Your task to perform on an android device: View the shopping cart on walmart. Search for "logitech g933" on walmart, select the first entry, and add it to the cart. Image 0: 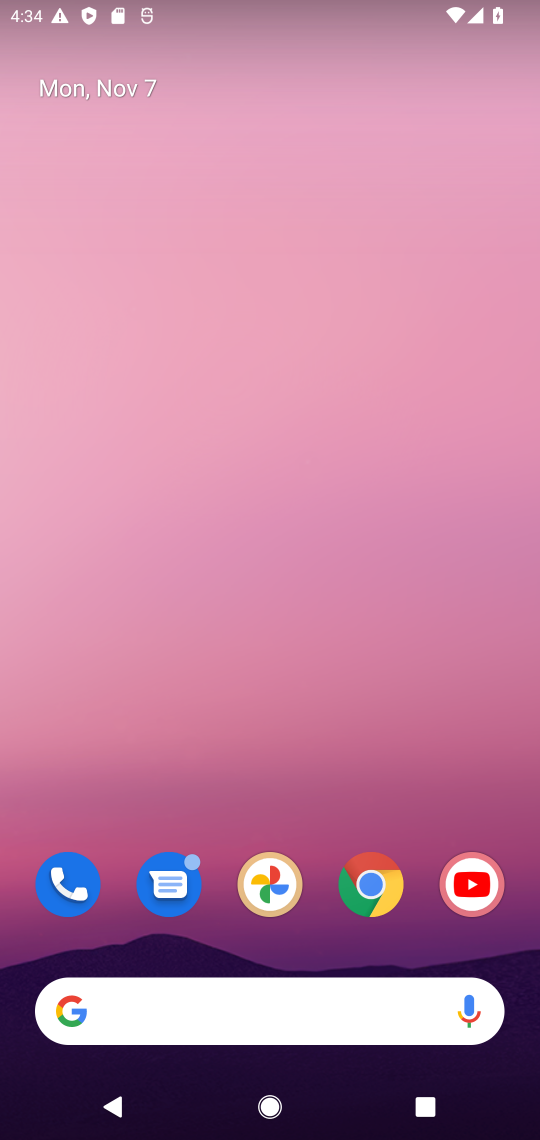
Step 0: drag from (317, 864) to (277, 0)
Your task to perform on an android device: View the shopping cart on walmart. Search for "logitech g933" on walmart, select the first entry, and add it to the cart. Image 1: 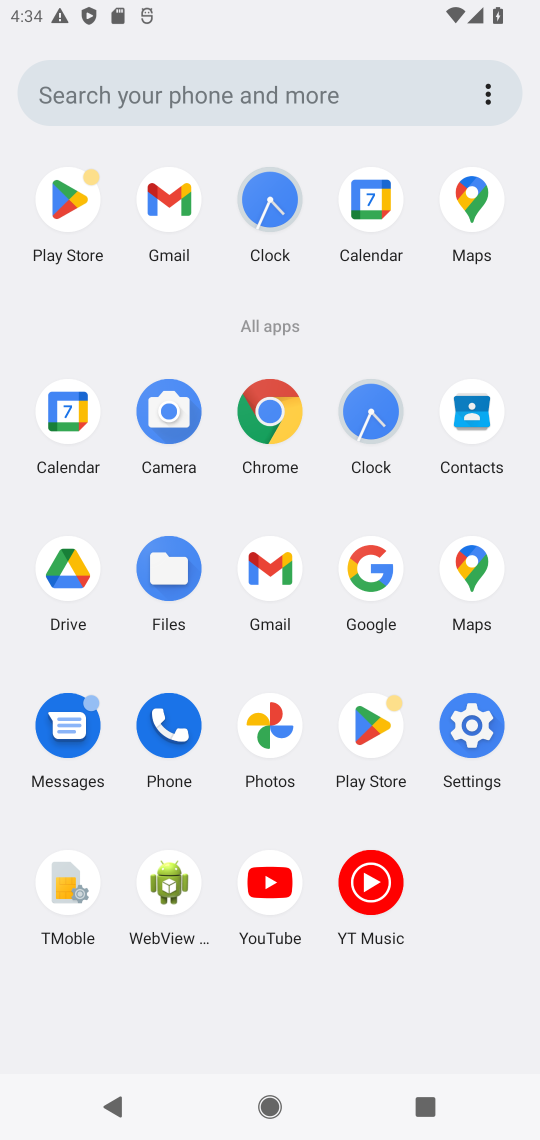
Step 1: click (269, 419)
Your task to perform on an android device: View the shopping cart on walmart. Search for "logitech g933" on walmart, select the first entry, and add it to the cart. Image 2: 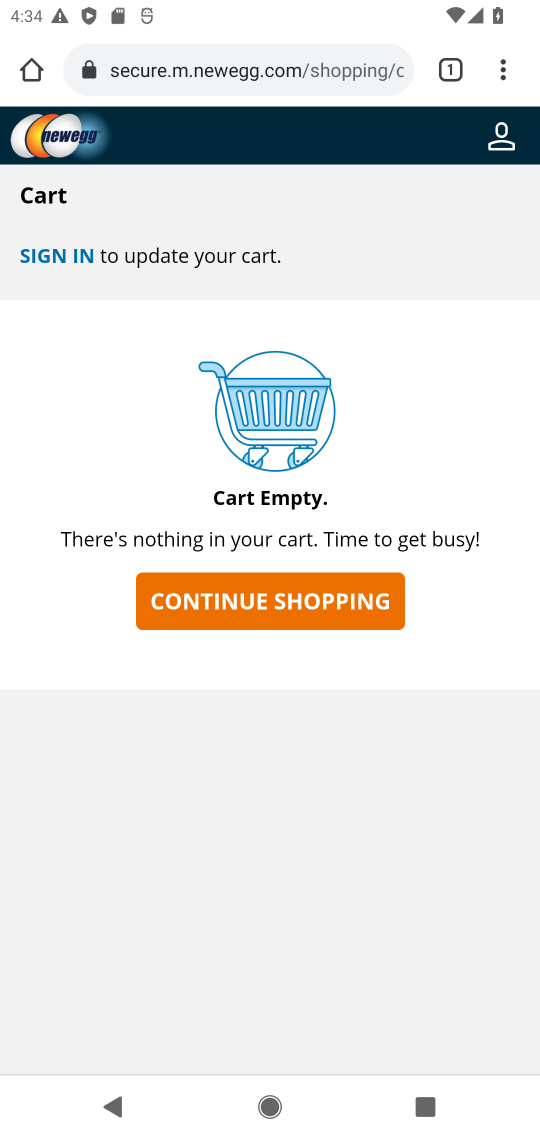
Step 2: click (312, 81)
Your task to perform on an android device: View the shopping cart on walmart. Search for "logitech g933" on walmart, select the first entry, and add it to the cart. Image 3: 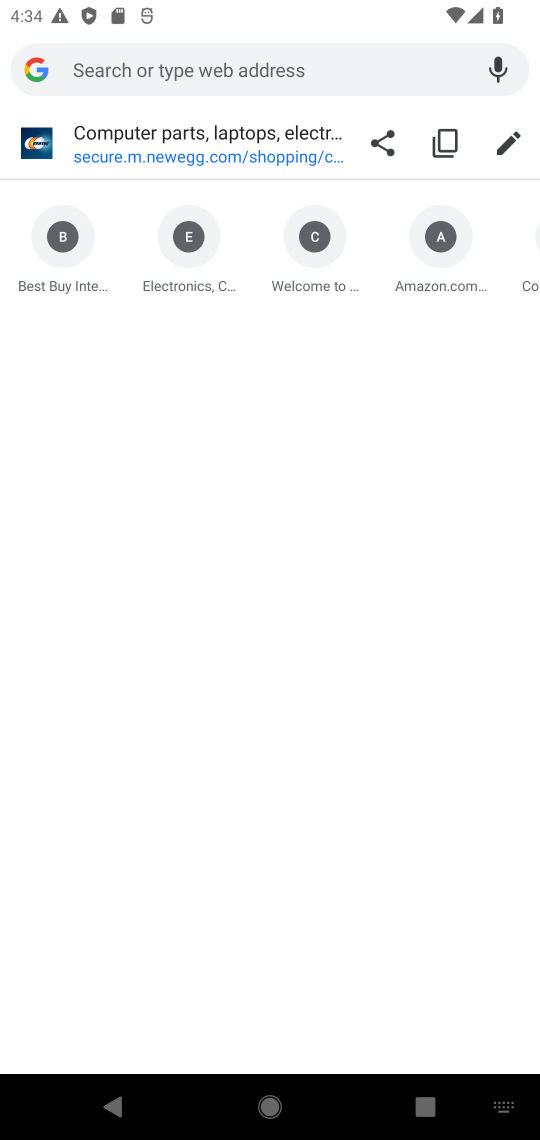
Step 3: type "walmart.com"
Your task to perform on an android device: View the shopping cart on walmart. Search for "logitech g933" on walmart, select the first entry, and add it to the cart. Image 4: 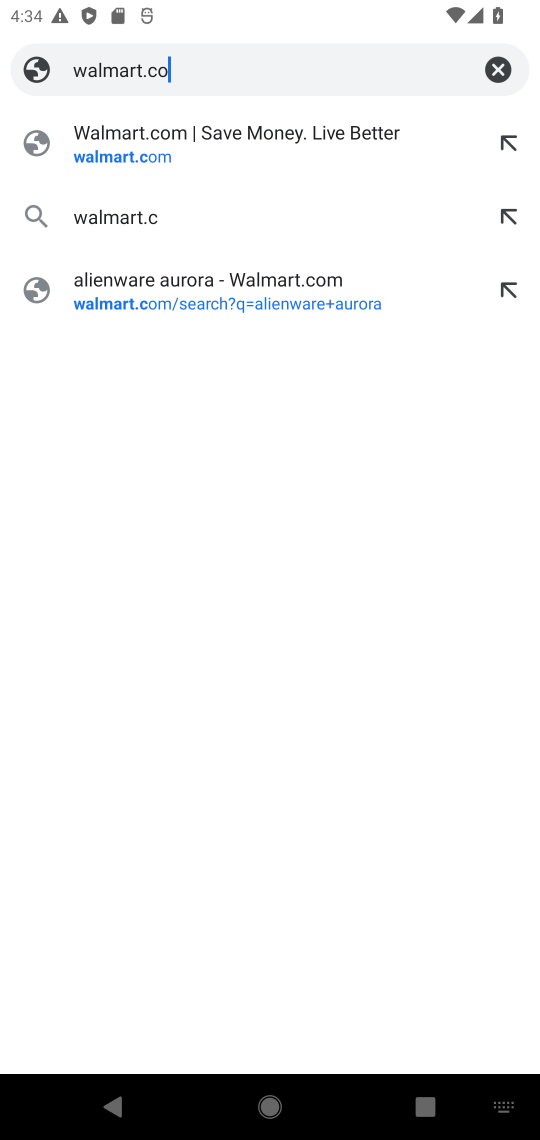
Step 4: press enter
Your task to perform on an android device: View the shopping cart on walmart. Search for "logitech g933" on walmart, select the first entry, and add it to the cart. Image 5: 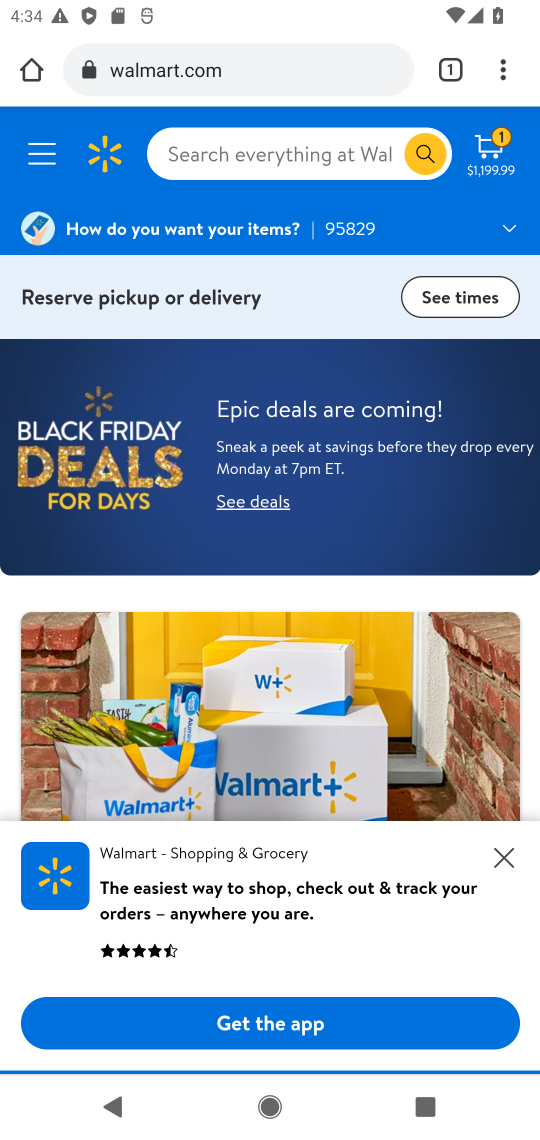
Step 5: click (500, 141)
Your task to perform on an android device: View the shopping cart on walmart. Search for "logitech g933" on walmart, select the first entry, and add it to the cart. Image 6: 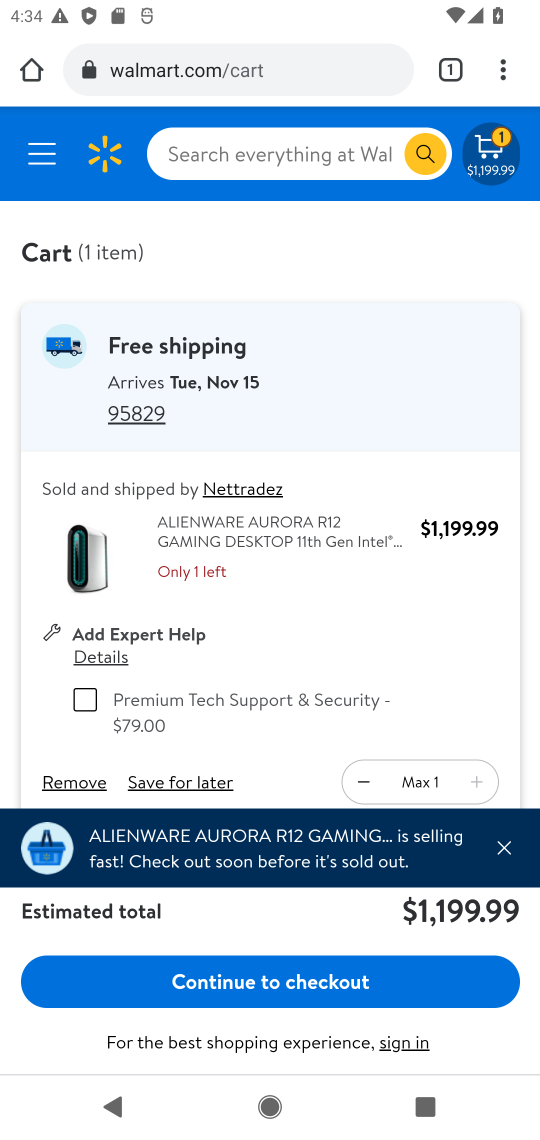
Step 6: click (261, 168)
Your task to perform on an android device: View the shopping cart on walmart. Search for "logitech g933" on walmart, select the first entry, and add it to the cart. Image 7: 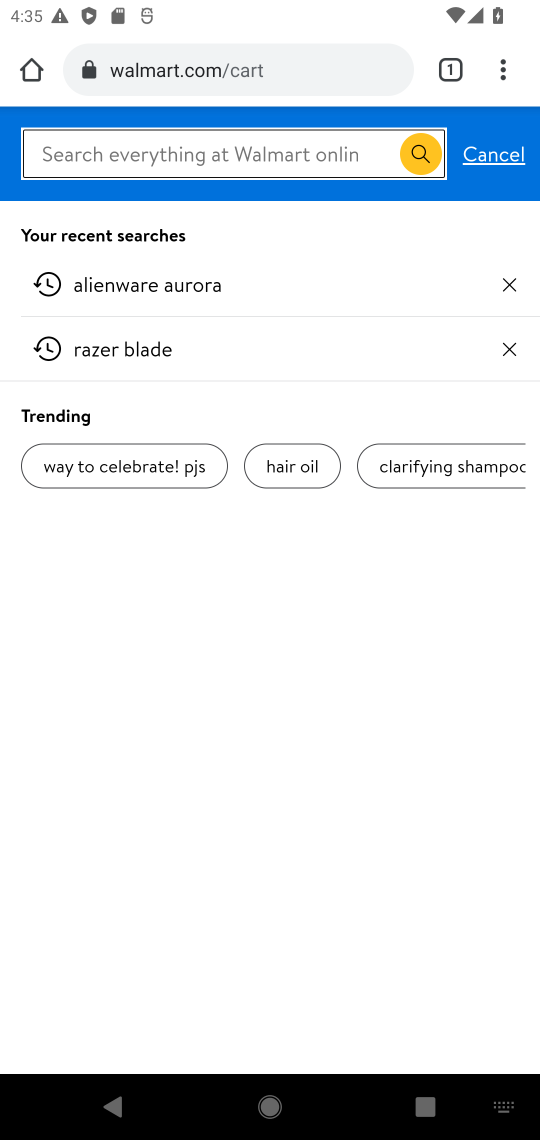
Step 7: type "logitech g933"
Your task to perform on an android device: View the shopping cart on walmart. Search for "logitech g933" on walmart, select the first entry, and add it to the cart. Image 8: 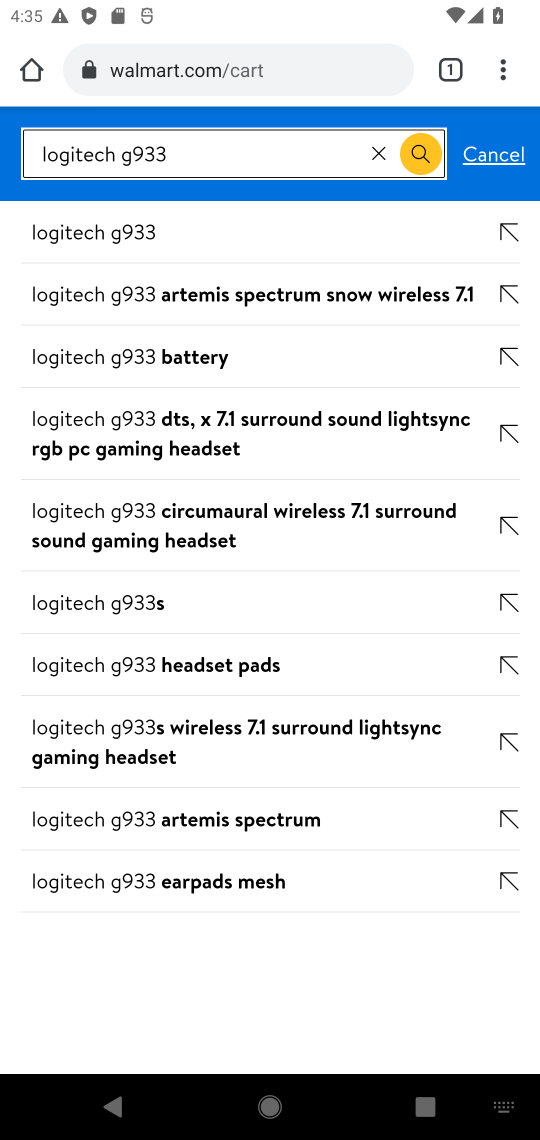
Step 8: press enter
Your task to perform on an android device: View the shopping cart on walmart. Search for "logitech g933" on walmart, select the first entry, and add it to the cart. Image 9: 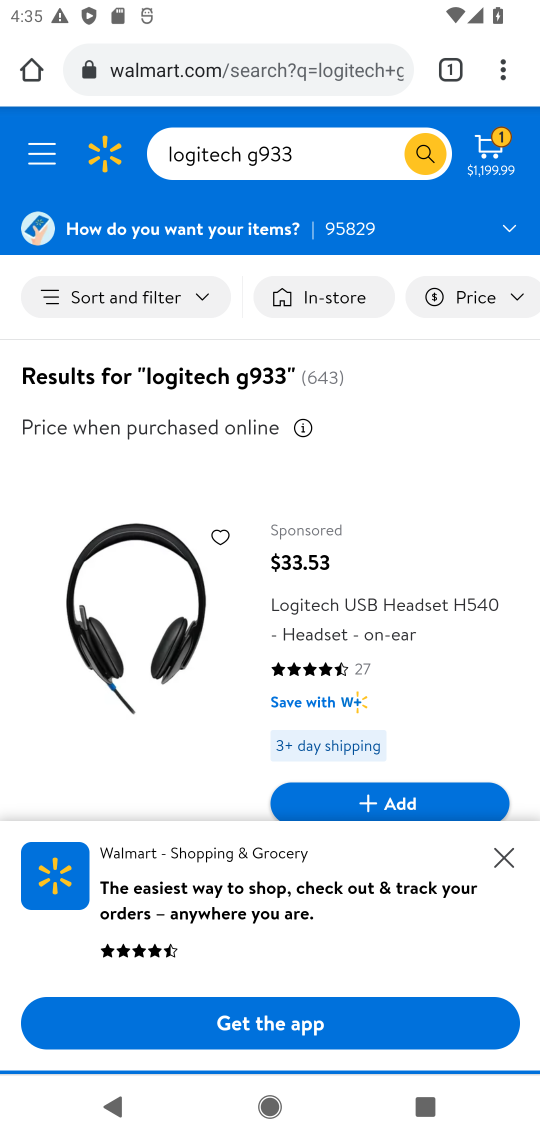
Step 9: drag from (318, 618) to (322, 253)
Your task to perform on an android device: View the shopping cart on walmart. Search for "logitech g933" on walmart, select the first entry, and add it to the cart. Image 10: 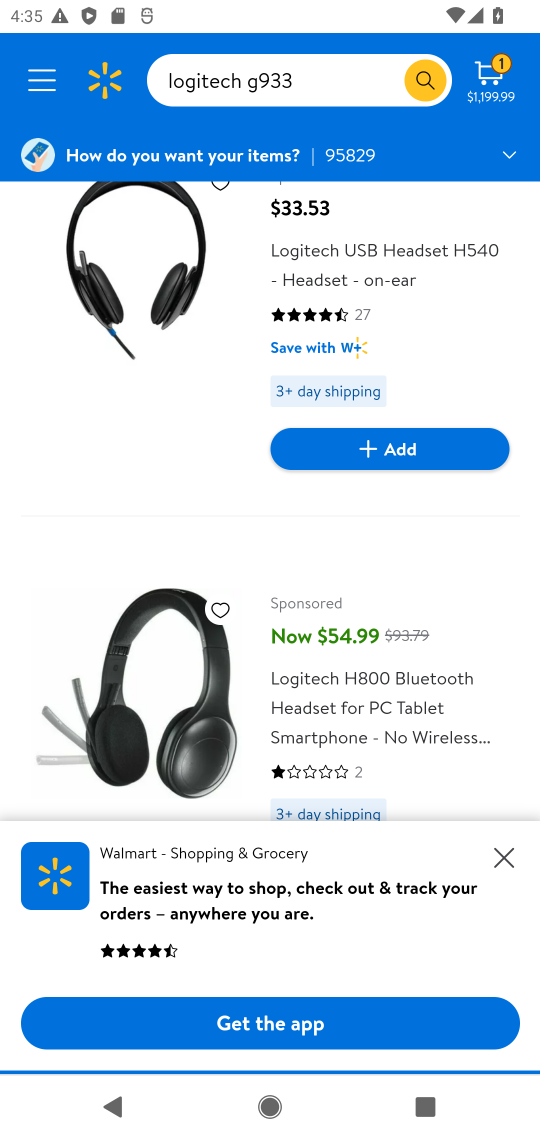
Step 10: drag from (370, 535) to (397, 751)
Your task to perform on an android device: View the shopping cart on walmart. Search for "logitech g933" on walmart, select the first entry, and add it to the cart. Image 11: 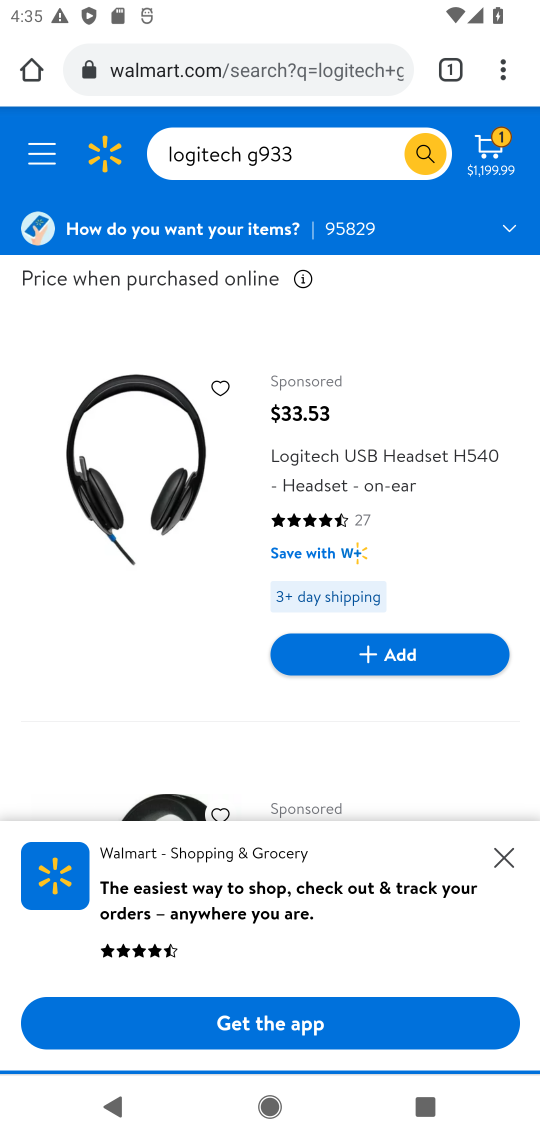
Step 11: drag from (410, 788) to (451, 247)
Your task to perform on an android device: View the shopping cart on walmart. Search for "logitech g933" on walmart, select the first entry, and add it to the cart. Image 12: 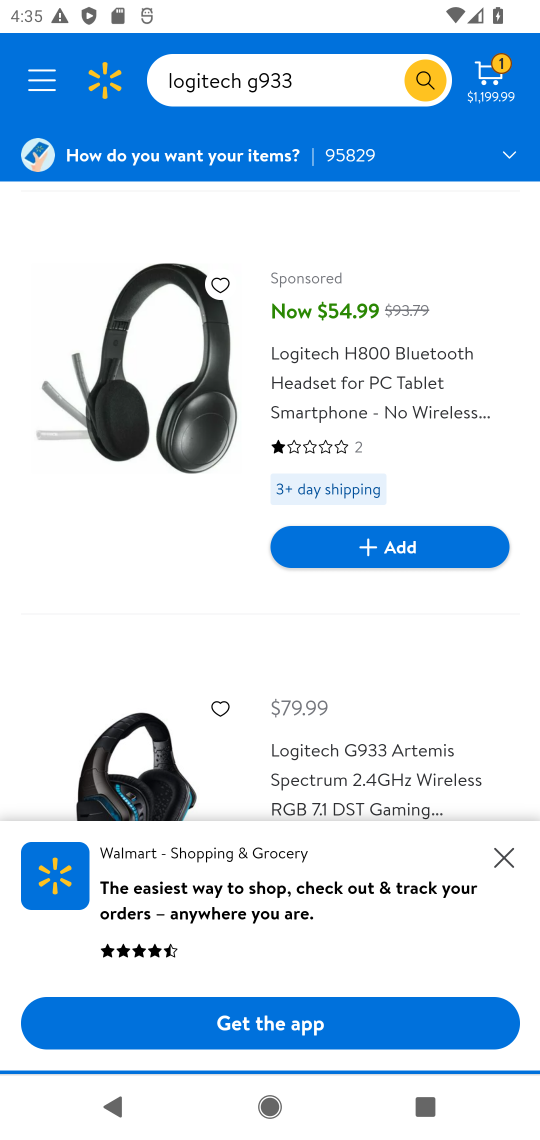
Step 12: drag from (385, 721) to (338, 247)
Your task to perform on an android device: View the shopping cart on walmart. Search for "logitech g933" on walmart, select the first entry, and add it to the cart. Image 13: 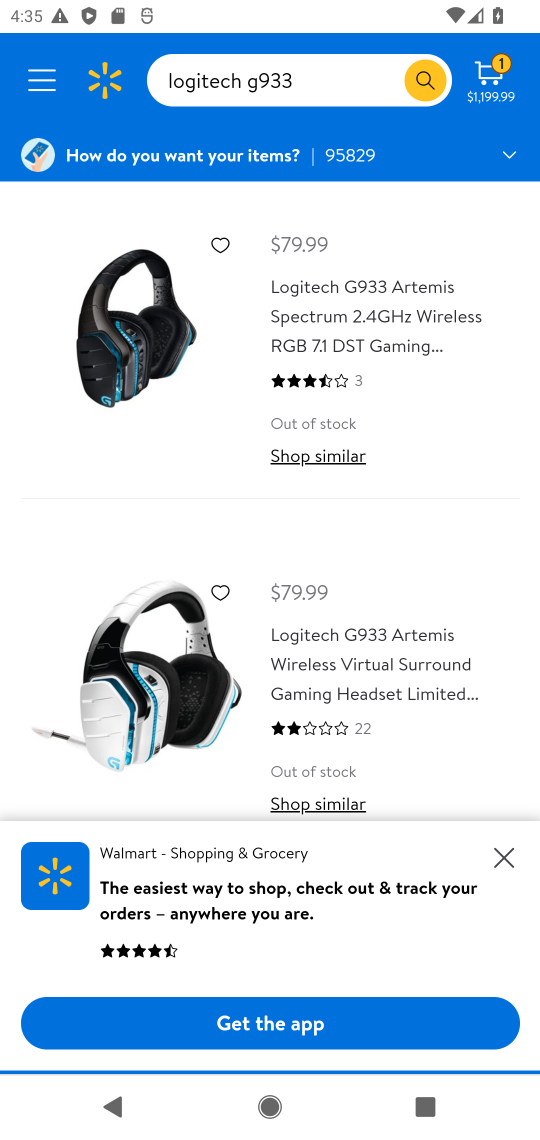
Step 13: drag from (379, 748) to (344, 301)
Your task to perform on an android device: View the shopping cart on walmart. Search for "logitech g933" on walmart, select the first entry, and add it to the cart. Image 14: 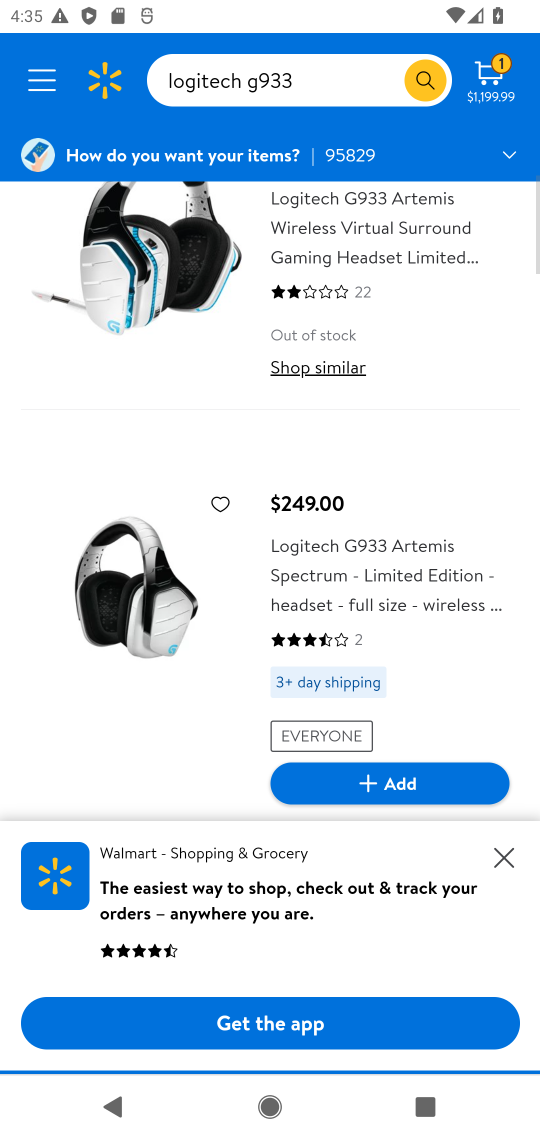
Step 14: drag from (340, 311) to (350, 861)
Your task to perform on an android device: View the shopping cart on walmart. Search for "logitech g933" on walmart, select the first entry, and add it to the cart. Image 15: 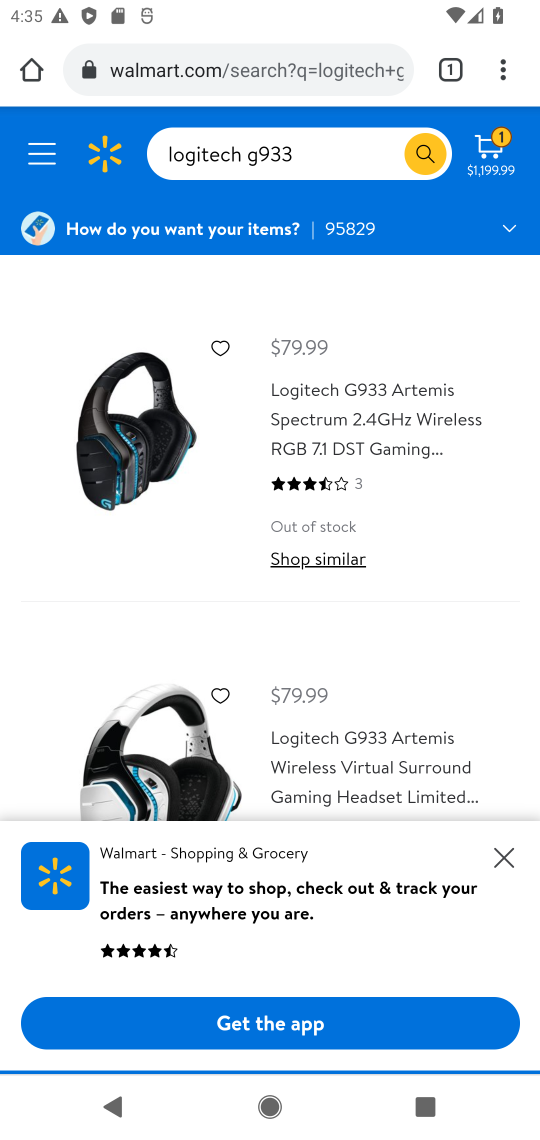
Step 15: click (384, 400)
Your task to perform on an android device: View the shopping cart on walmart. Search for "logitech g933" on walmart, select the first entry, and add it to the cart. Image 16: 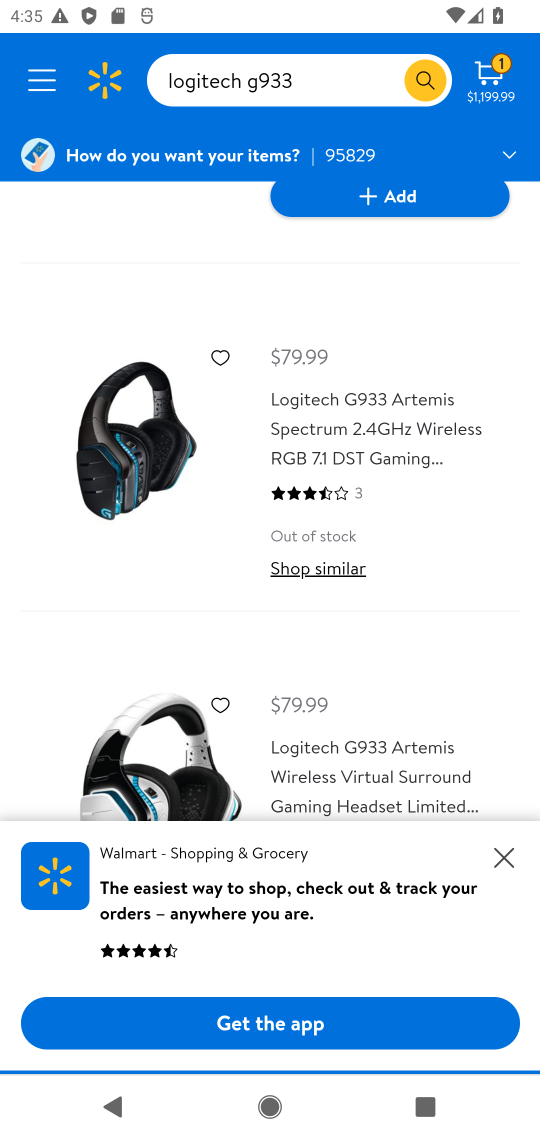
Step 16: click (332, 411)
Your task to perform on an android device: View the shopping cart on walmart. Search for "logitech g933" on walmart, select the first entry, and add it to the cart. Image 17: 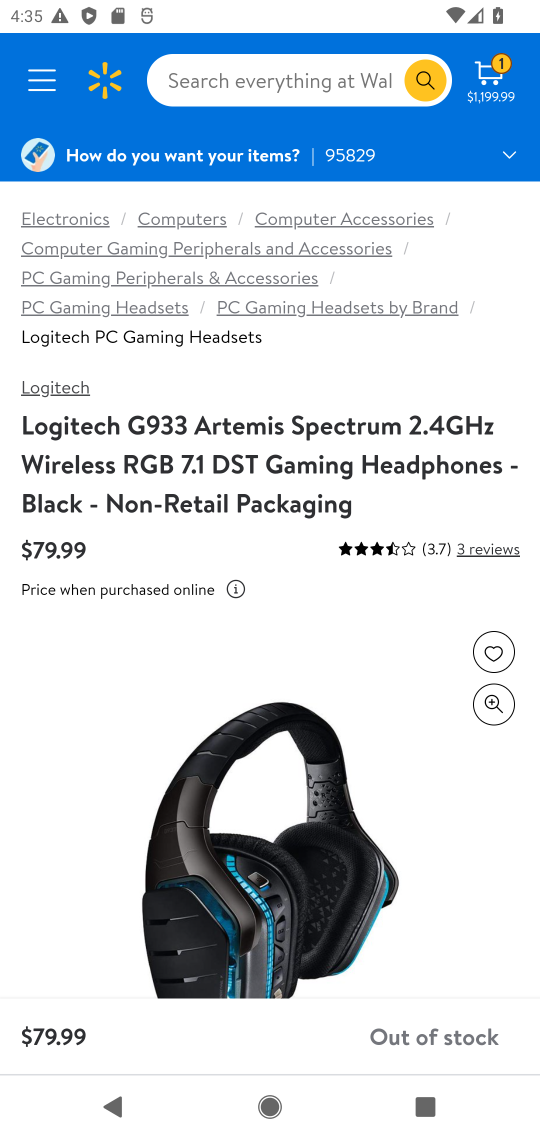
Step 17: task complete